Your task to perform on an android device: Go to Amazon Image 0: 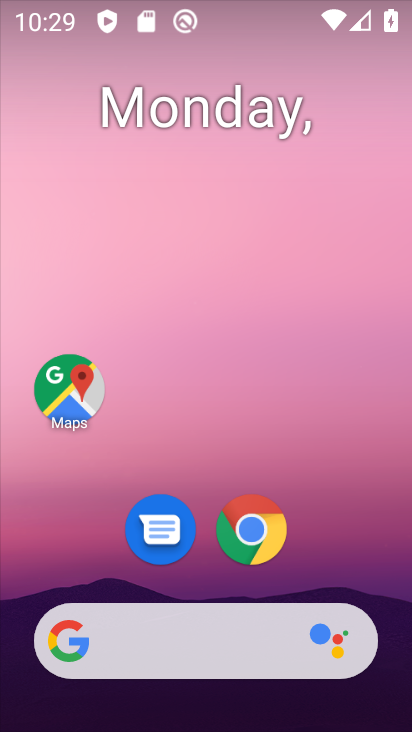
Step 0: click (246, 533)
Your task to perform on an android device: Go to Amazon Image 1: 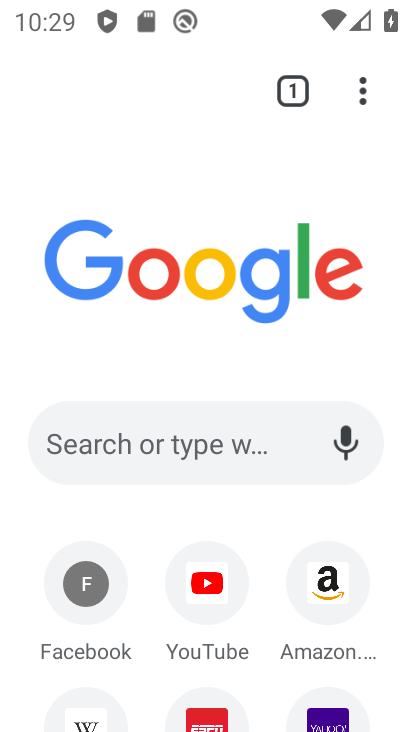
Step 1: click (335, 579)
Your task to perform on an android device: Go to Amazon Image 2: 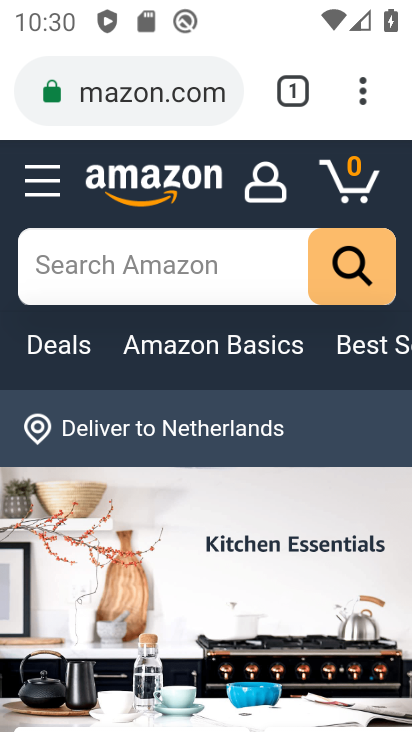
Step 2: task complete